Your task to perform on an android device: Open ESPN.com Image 0: 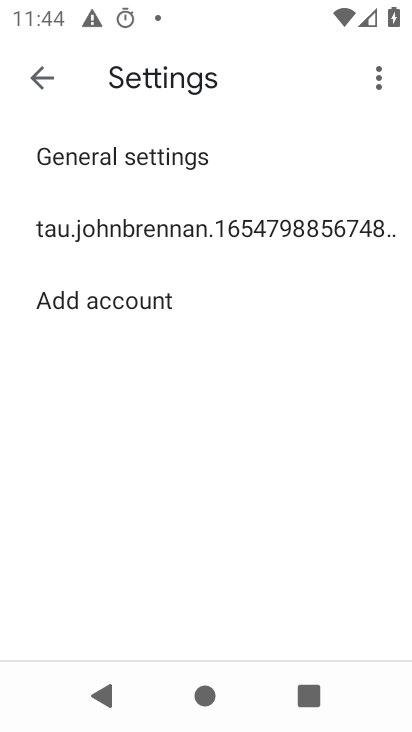
Step 0: press back button
Your task to perform on an android device: Open ESPN.com Image 1: 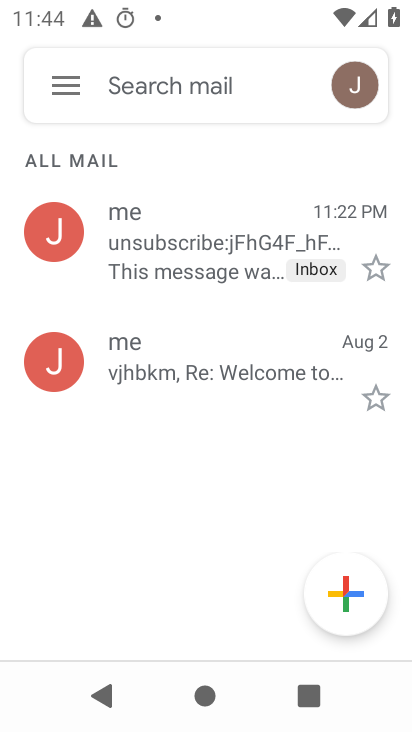
Step 1: press back button
Your task to perform on an android device: Open ESPN.com Image 2: 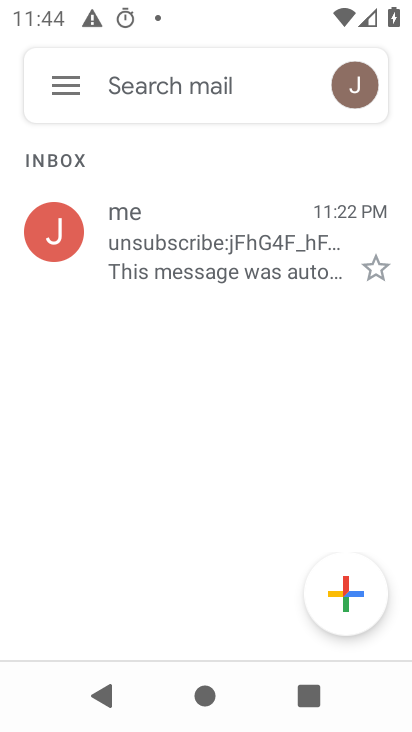
Step 2: press home button
Your task to perform on an android device: Open ESPN.com Image 3: 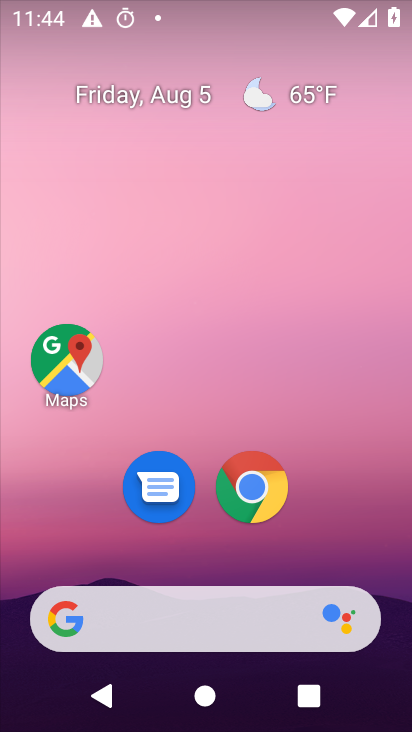
Step 3: click (258, 507)
Your task to perform on an android device: Open ESPN.com Image 4: 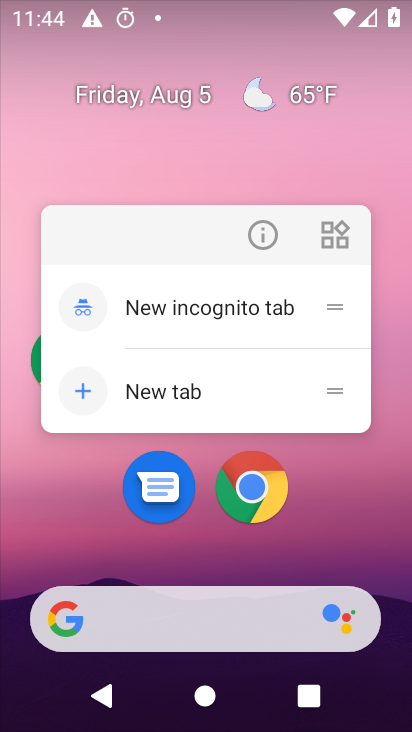
Step 4: click (239, 467)
Your task to perform on an android device: Open ESPN.com Image 5: 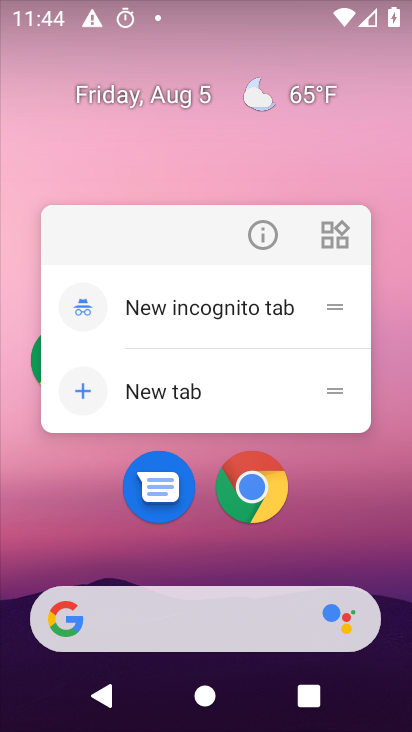
Step 5: click (245, 506)
Your task to perform on an android device: Open ESPN.com Image 6: 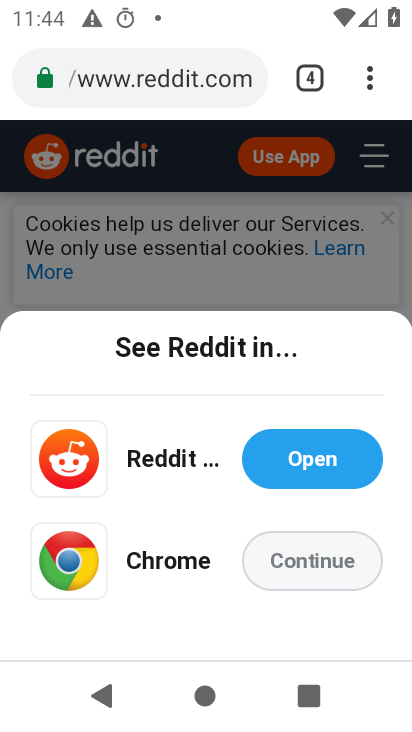
Step 6: click (309, 78)
Your task to perform on an android device: Open ESPN.com Image 7: 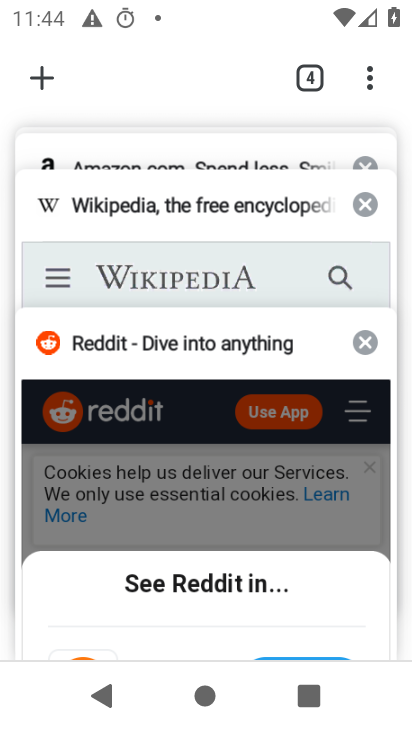
Step 7: click (43, 76)
Your task to perform on an android device: Open ESPN.com Image 8: 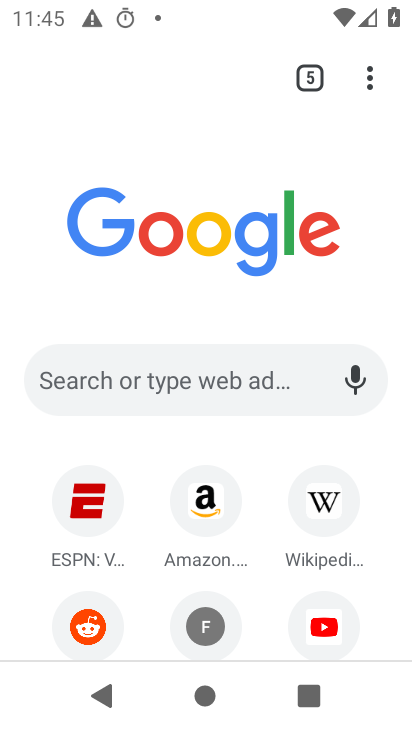
Step 8: click (87, 520)
Your task to perform on an android device: Open ESPN.com Image 9: 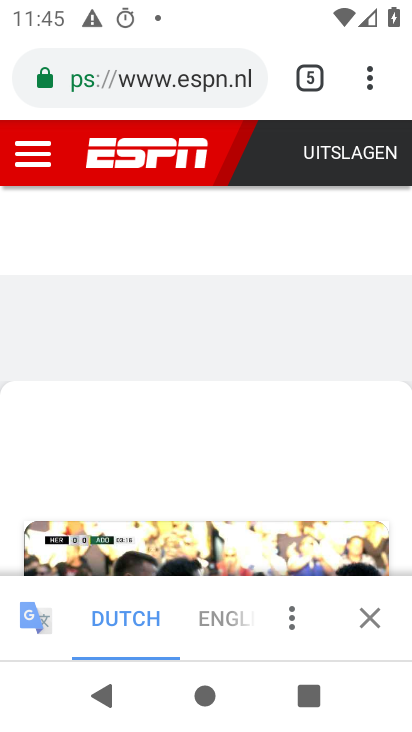
Step 9: task complete